Your task to perform on an android device: turn off notifications settings in the gmail app Image 0: 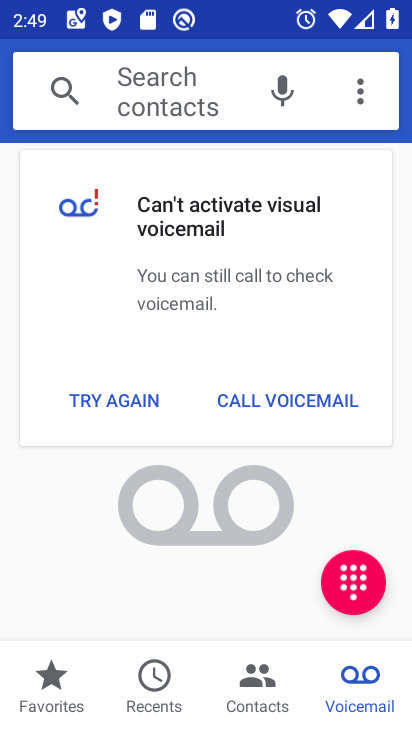
Step 0: task complete